Your task to perform on an android device: uninstall "Etsy: Buy & Sell Unique Items" Image 0: 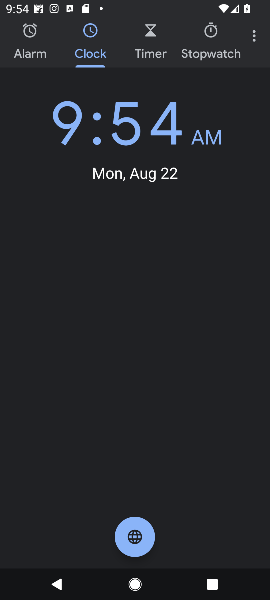
Step 0: press home button
Your task to perform on an android device: uninstall "Etsy: Buy & Sell Unique Items" Image 1: 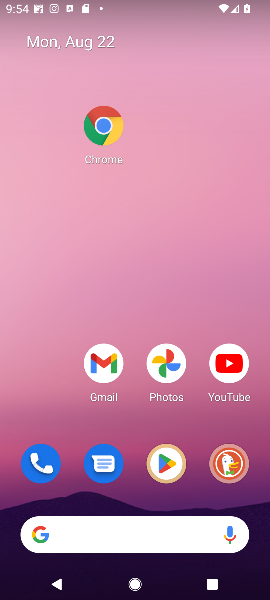
Step 1: click (156, 473)
Your task to perform on an android device: uninstall "Etsy: Buy & Sell Unique Items" Image 2: 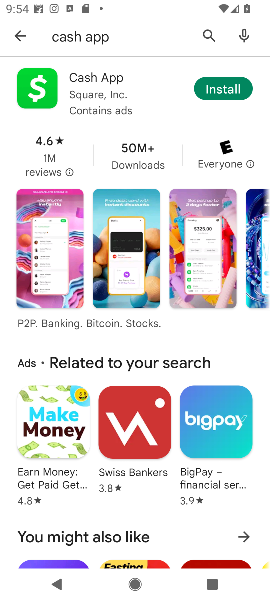
Step 2: click (15, 32)
Your task to perform on an android device: uninstall "Etsy: Buy & Sell Unique Items" Image 3: 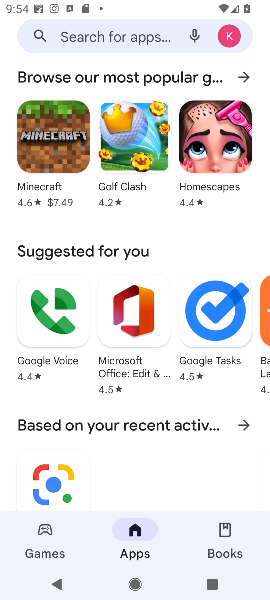
Step 3: click (112, 37)
Your task to perform on an android device: uninstall "Etsy: Buy & Sell Unique Items" Image 4: 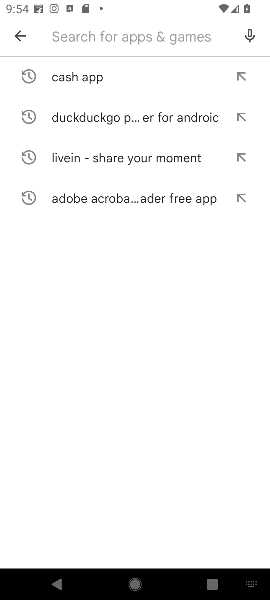
Step 4: type "Etsy: Buy & Sell Unique Items"
Your task to perform on an android device: uninstall "Etsy: Buy & Sell Unique Items" Image 5: 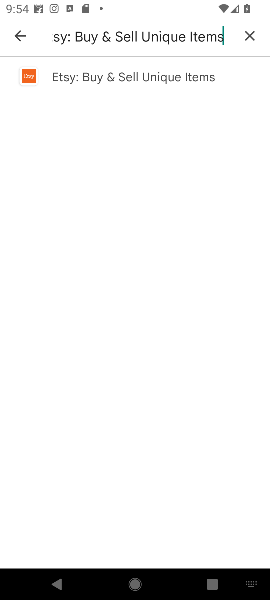
Step 5: click (173, 71)
Your task to perform on an android device: uninstall "Etsy: Buy & Sell Unique Items" Image 6: 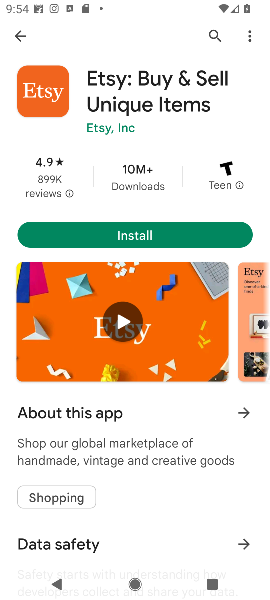
Step 6: click (125, 234)
Your task to perform on an android device: uninstall "Etsy: Buy & Sell Unique Items" Image 7: 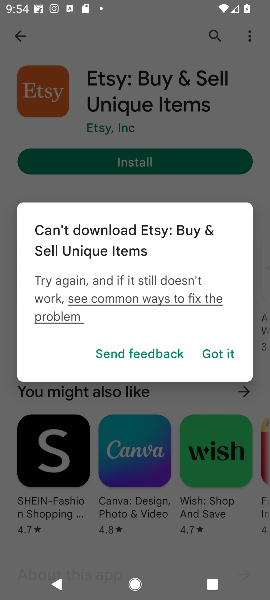
Step 7: click (218, 350)
Your task to perform on an android device: uninstall "Etsy: Buy & Sell Unique Items" Image 8: 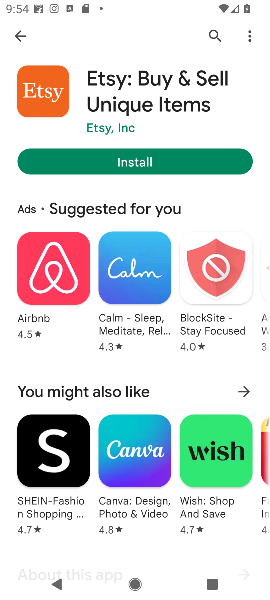
Step 8: task complete